Your task to perform on an android device: turn smart compose on in the gmail app Image 0: 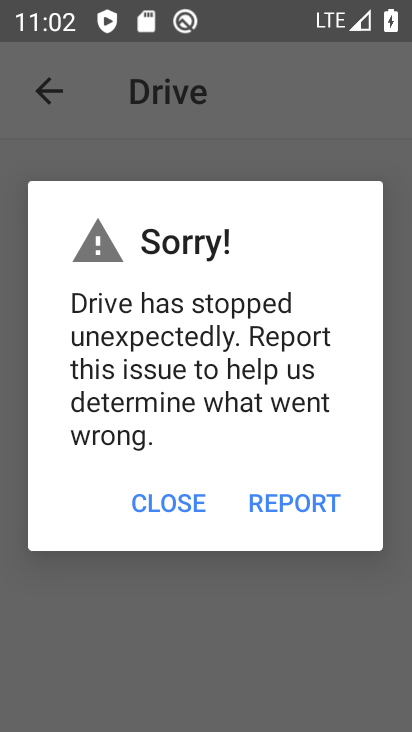
Step 0: press home button
Your task to perform on an android device: turn smart compose on in the gmail app Image 1: 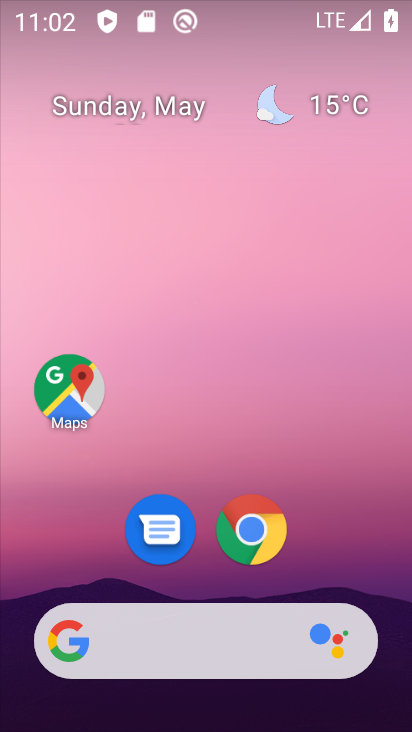
Step 1: drag from (310, 617) to (326, 140)
Your task to perform on an android device: turn smart compose on in the gmail app Image 2: 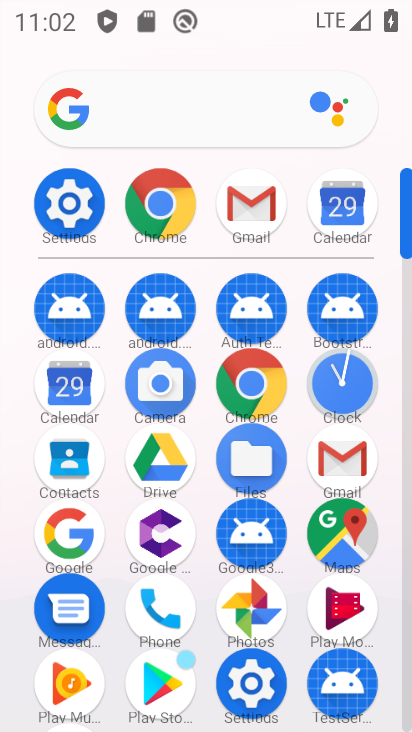
Step 2: click (369, 452)
Your task to perform on an android device: turn smart compose on in the gmail app Image 3: 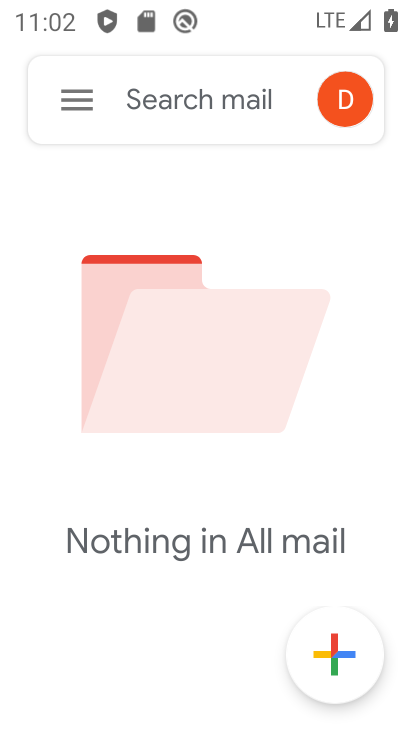
Step 3: click (86, 99)
Your task to perform on an android device: turn smart compose on in the gmail app Image 4: 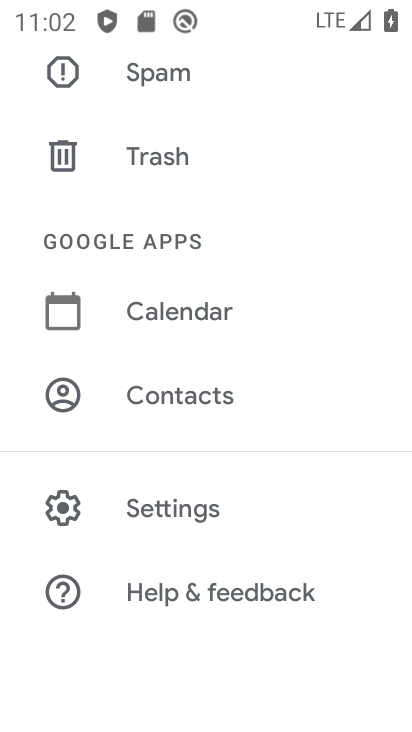
Step 4: click (235, 500)
Your task to perform on an android device: turn smart compose on in the gmail app Image 5: 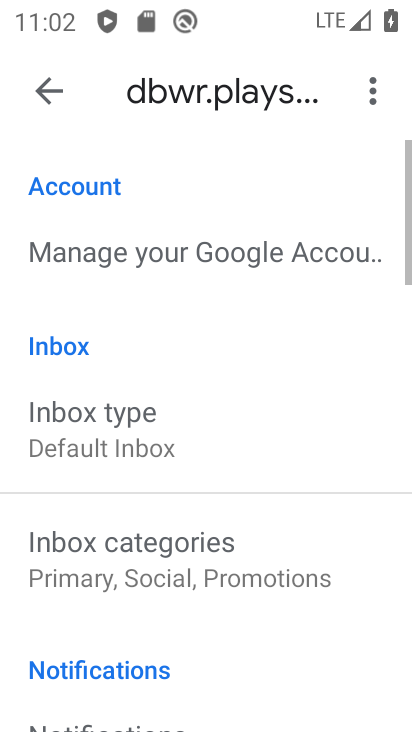
Step 5: task complete